Your task to perform on an android device: change timer sound Image 0: 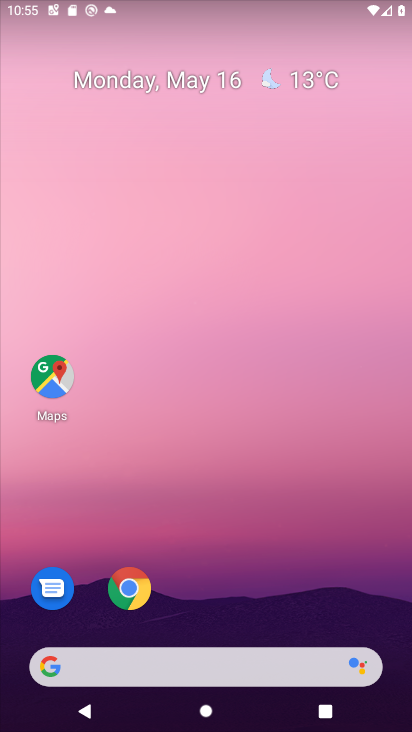
Step 0: drag from (238, 628) to (238, 62)
Your task to perform on an android device: change timer sound Image 1: 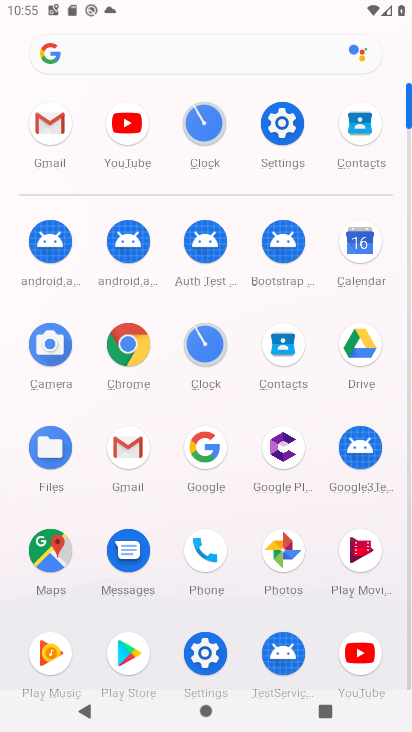
Step 1: click (202, 115)
Your task to perform on an android device: change timer sound Image 2: 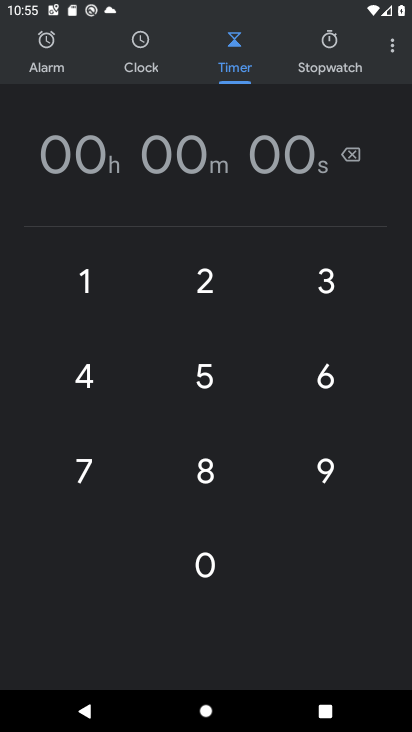
Step 2: click (391, 40)
Your task to perform on an android device: change timer sound Image 3: 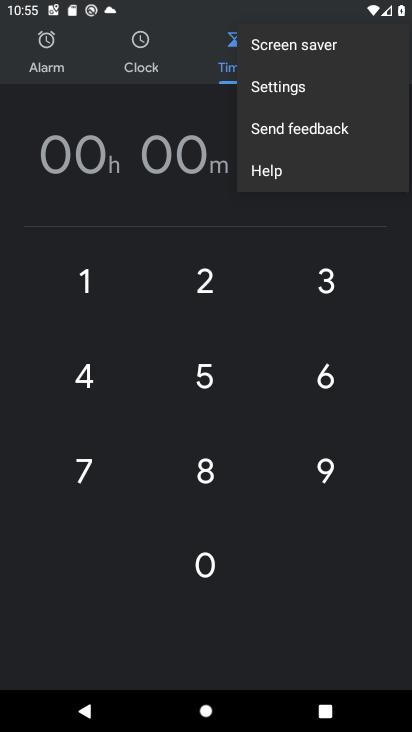
Step 3: click (307, 88)
Your task to perform on an android device: change timer sound Image 4: 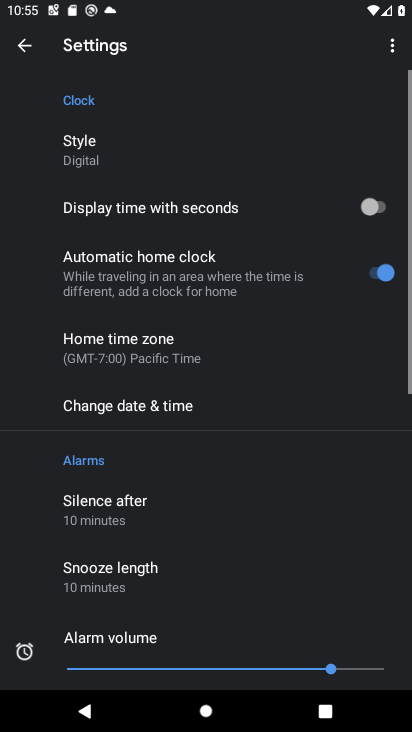
Step 4: drag from (193, 623) to (209, 183)
Your task to perform on an android device: change timer sound Image 5: 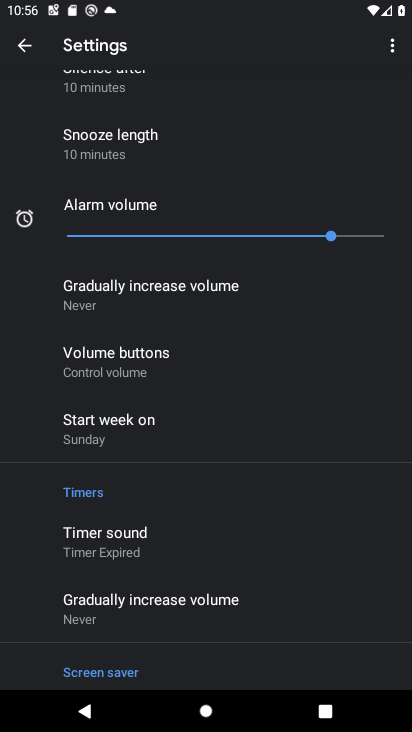
Step 5: click (157, 548)
Your task to perform on an android device: change timer sound Image 6: 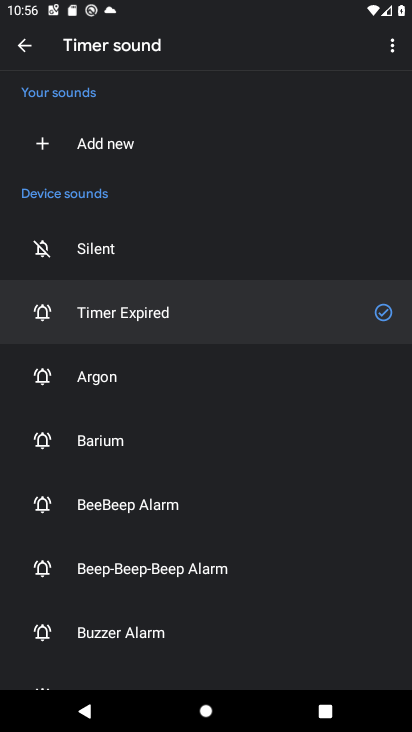
Step 6: click (182, 636)
Your task to perform on an android device: change timer sound Image 7: 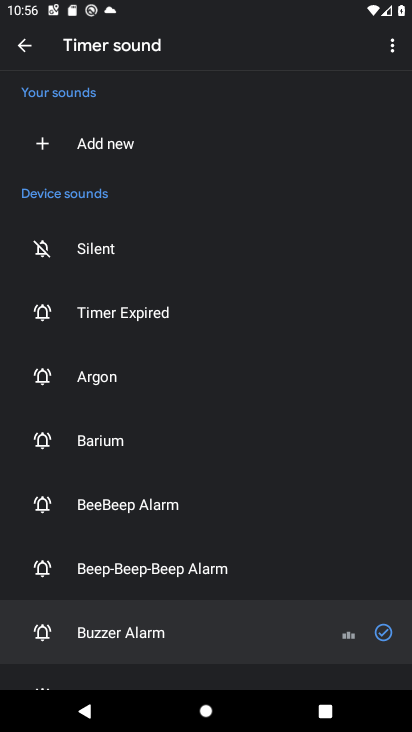
Step 7: task complete